Your task to perform on an android device: Open battery settings Image 0: 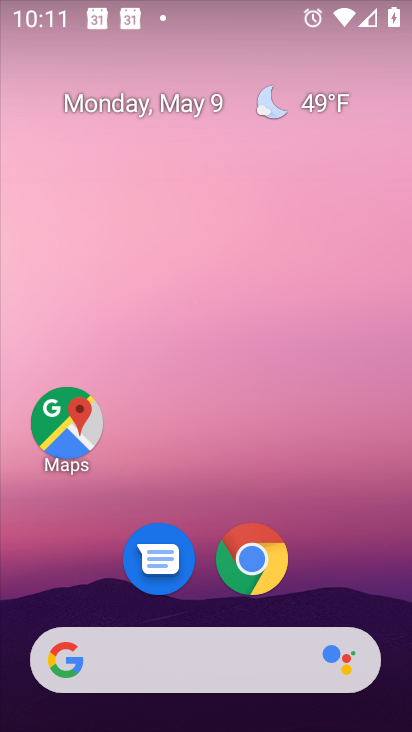
Step 0: drag from (202, 694) to (195, 132)
Your task to perform on an android device: Open battery settings Image 1: 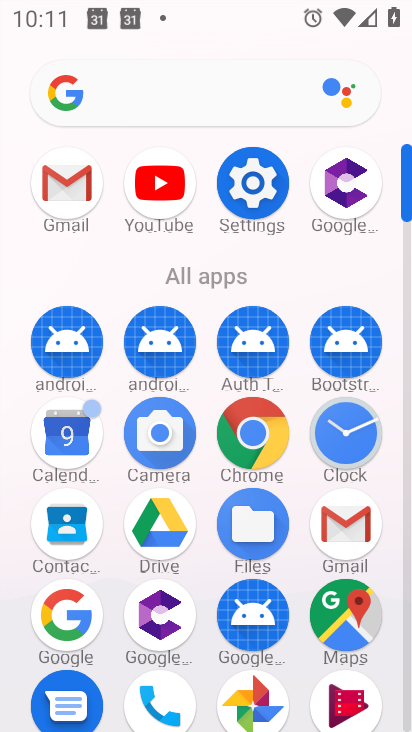
Step 1: click (261, 183)
Your task to perform on an android device: Open battery settings Image 2: 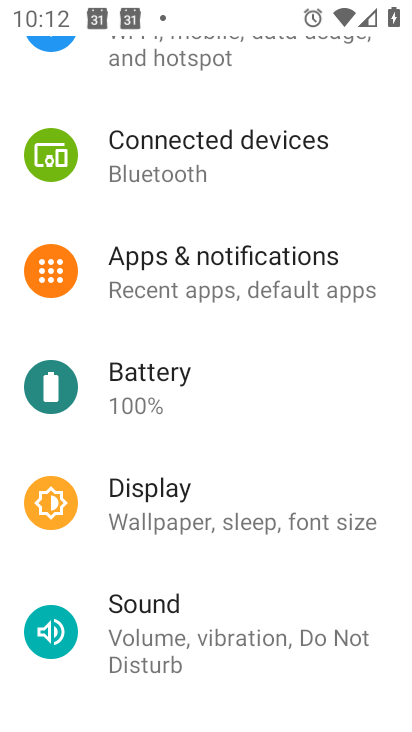
Step 2: click (143, 380)
Your task to perform on an android device: Open battery settings Image 3: 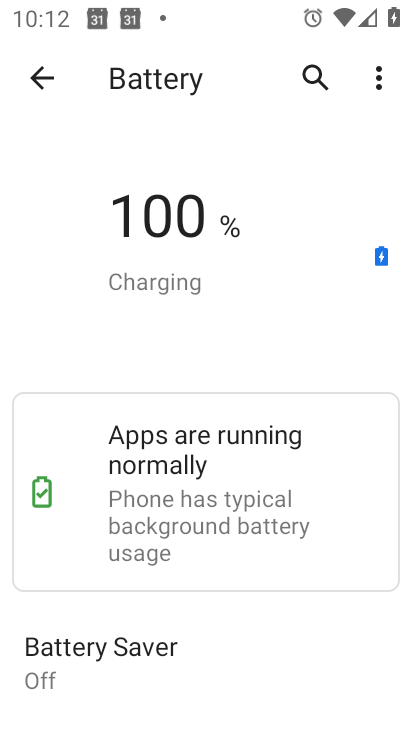
Step 3: task complete